Your task to perform on an android device: turn on location history Image 0: 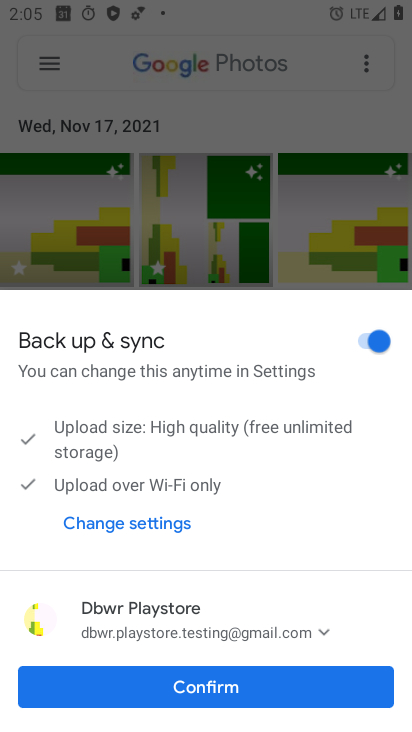
Step 0: press home button
Your task to perform on an android device: turn on location history Image 1: 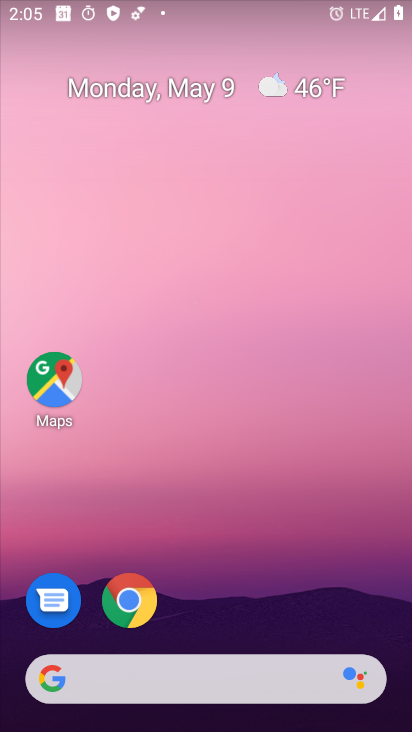
Step 1: drag from (140, 692) to (140, 92)
Your task to perform on an android device: turn on location history Image 2: 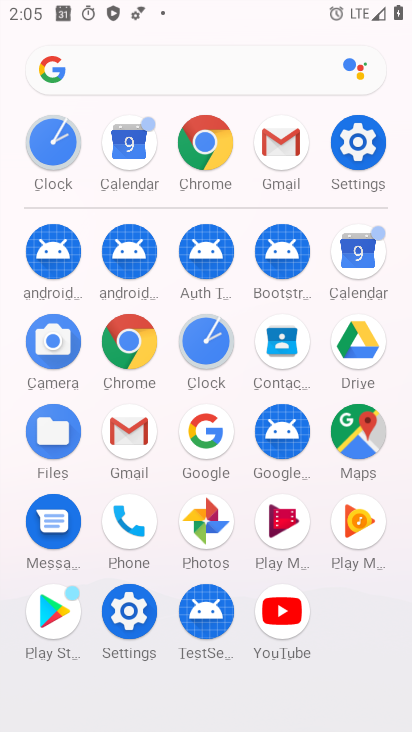
Step 2: click (364, 141)
Your task to perform on an android device: turn on location history Image 3: 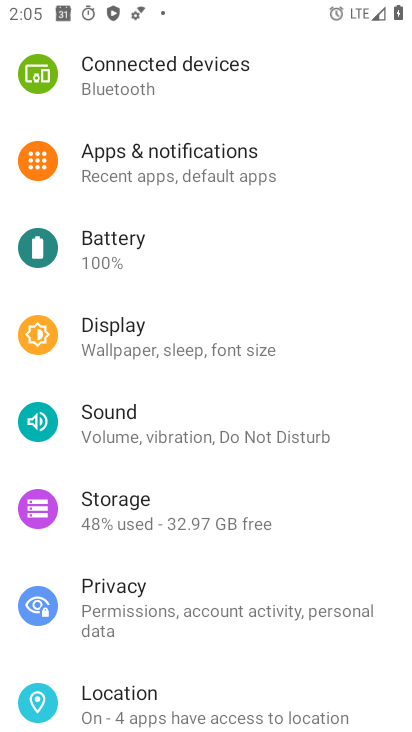
Step 3: drag from (193, 615) to (219, 148)
Your task to perform on an android device: turn on location history Image 4: 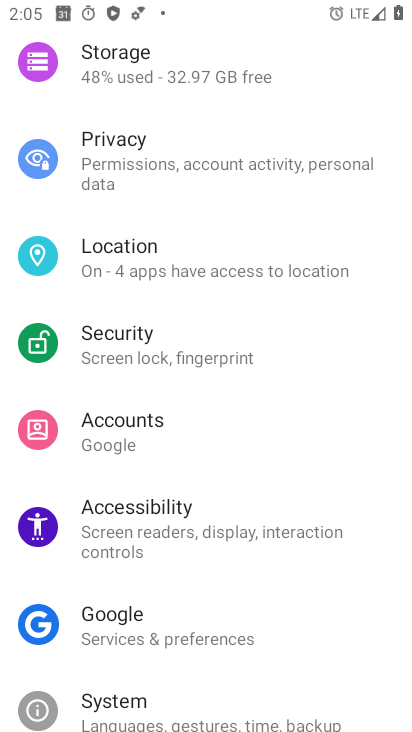
Step 4: click (154, 256)
Your task to perform on an android device: turn on location history Image 5: 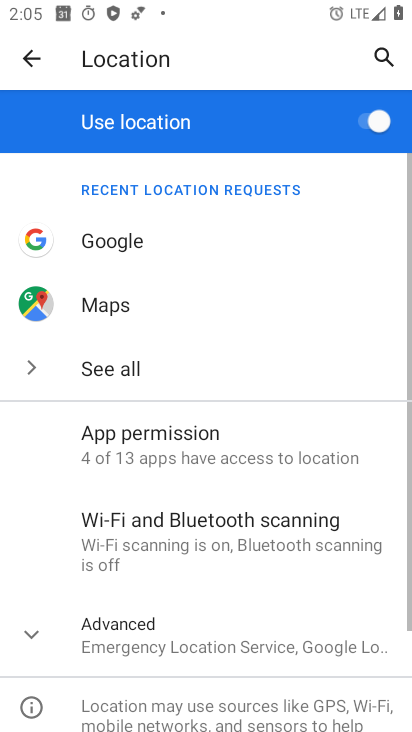
Step 5: drag from (132, 551) to (95, 171)
Your task to perform on an android device: turn on location history Image 6: 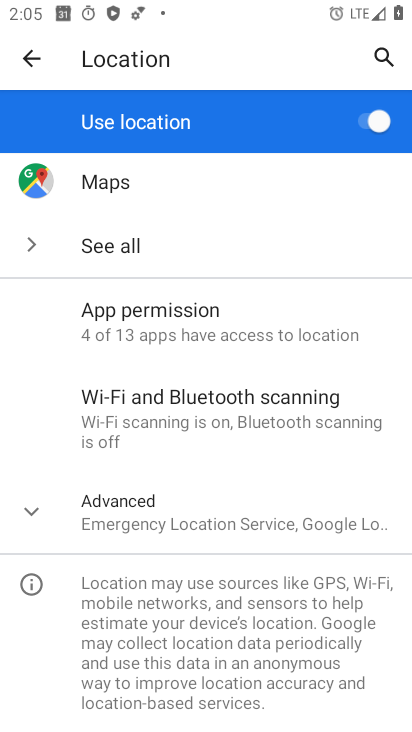
Step 6: click (162, 521)
Your task to perform on an android device: turn on location history Image 7: 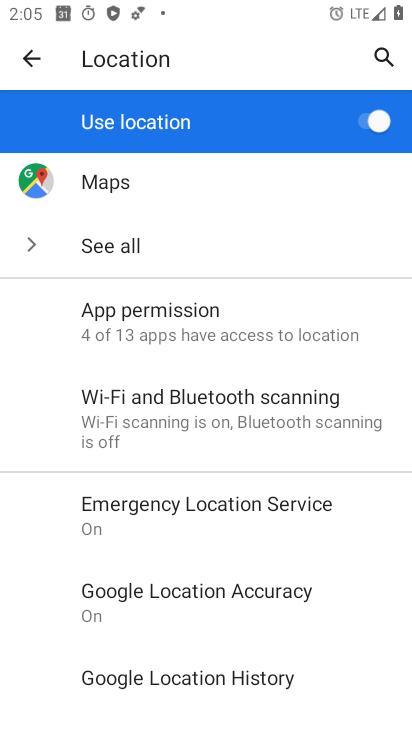
Step 7: click (148, 669)
Your task to perform on an android device: turn on location history Image 8: 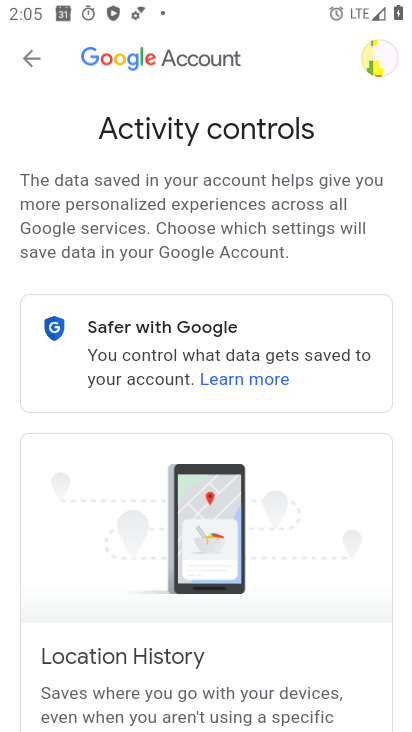
Step 8: click (328, 236)
Your task to perform on an android device: turn on location history Image 9: 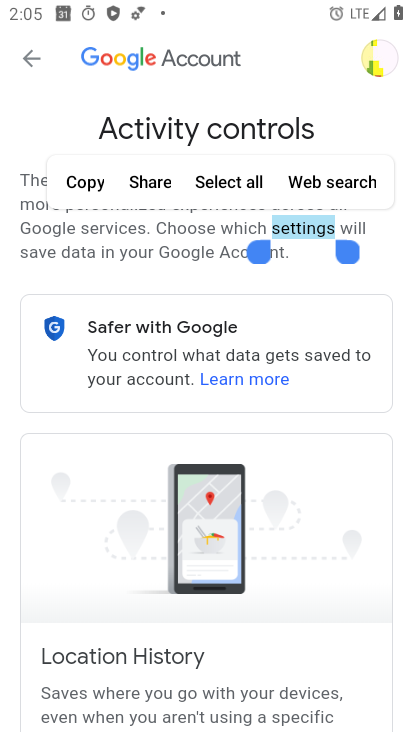
Step 9: press home button
Your task to perform on an android device: turn on location history Image 10: 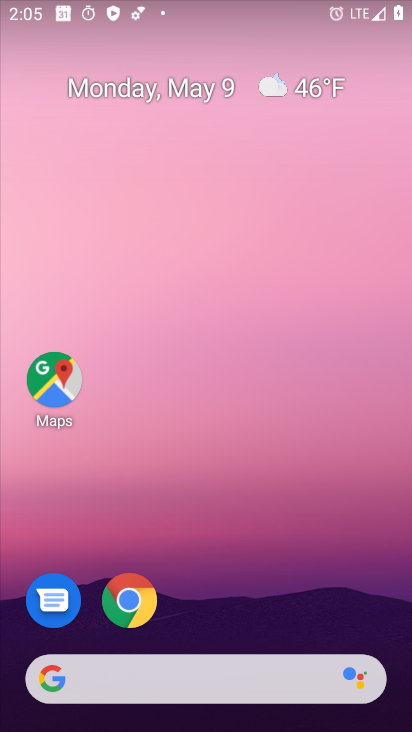
Step 10: drag from (196, 674) to (200, 272)
Your task to perform on an android device: turn on location history Image 11: 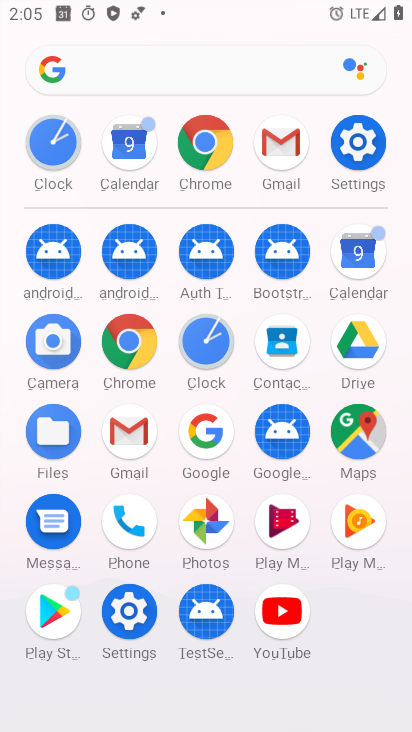
Step 11: click (358, 158)
Your task to perform on an android device: turn on location history Image 12: 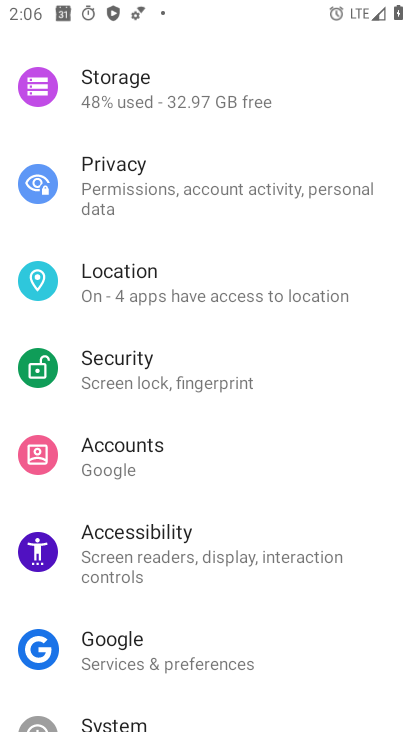
Step 12: drag from (125, 575) to (125, 471)
Your task to perform on an android device: turn on location history Image 13: 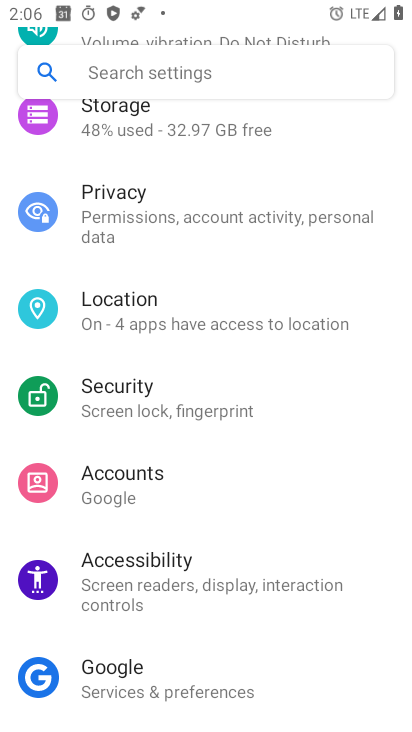
Step 13: click (128, 324)
Your task to perform on an android device: turn on location history Image 14: 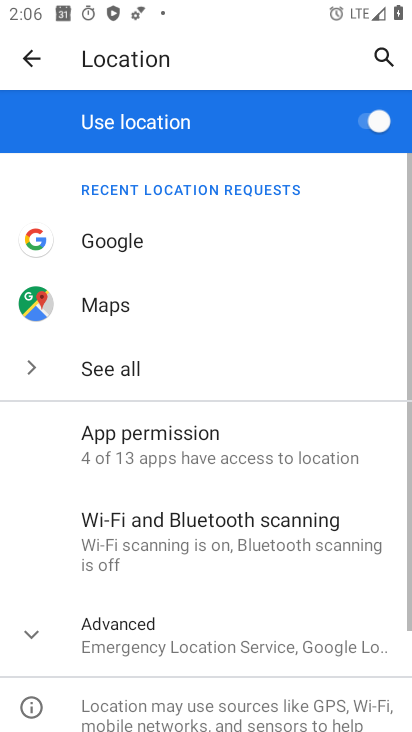
Step 14: click (121, 616)
Your task to perform on an android device: turn on location history Image 15: 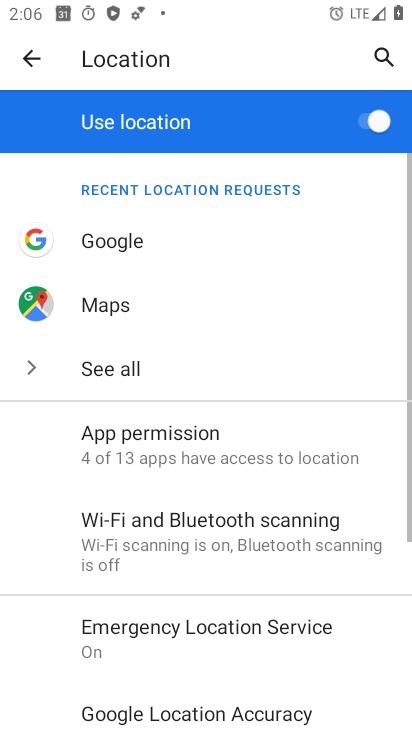
Step 15: drag from (151, 614) to (136, 202)
Your task to perform on an android device: turn on location history Image 16: 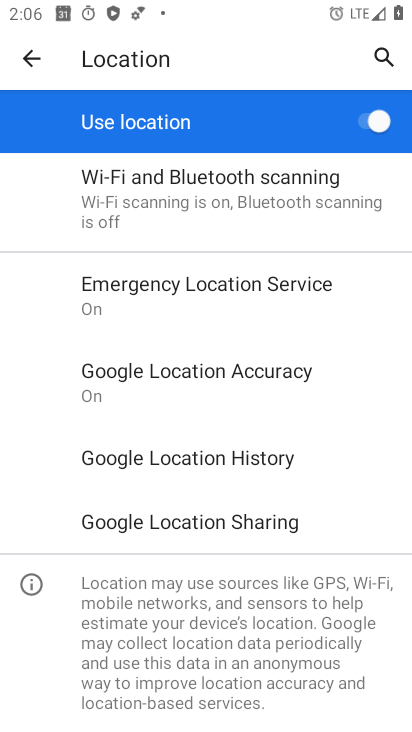
Step 16: click (202, 462)
Your task to perform on an android device: turn on location history Image 17: 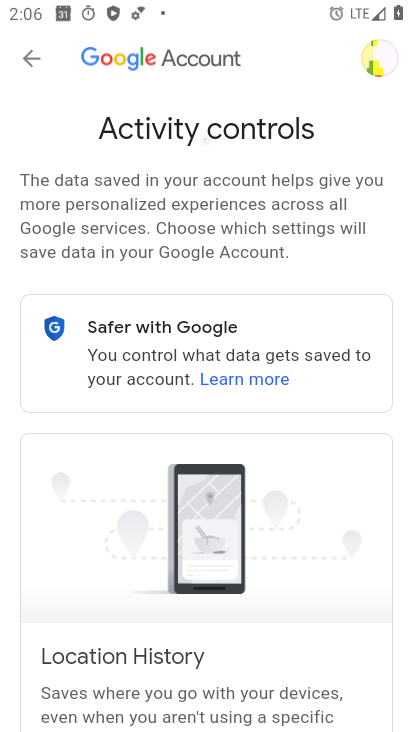
Step 17: drag from (172, 498) to (200, 64)
Your task to perform on an android device: turn on location history Image 18: 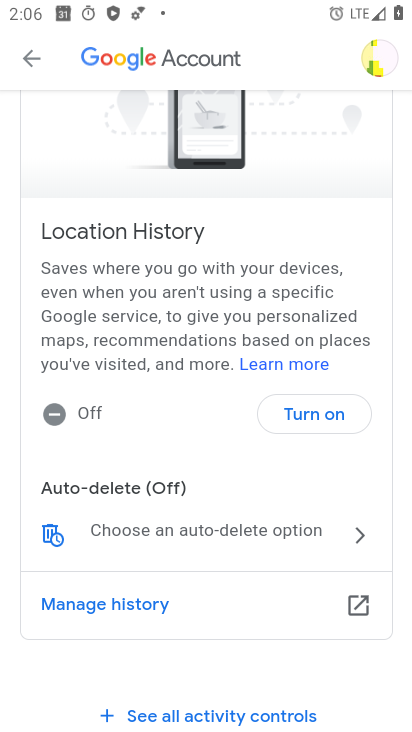
Step 18: click (318, 418)
Your task to perform on an android device: turn on location history Image 19: 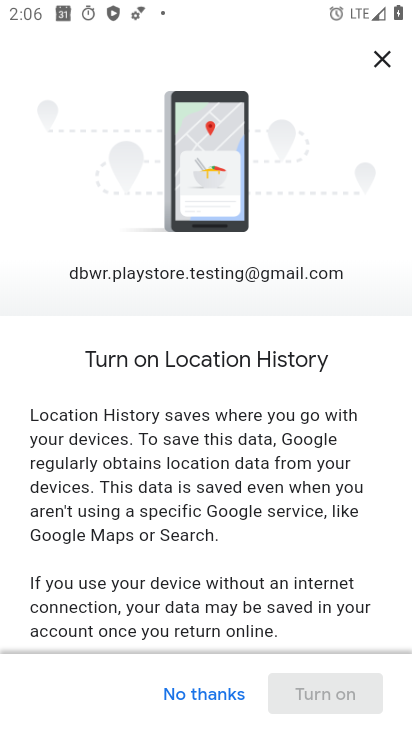
Step 19: drag from (294, 617) to (319, 119)
Your task to perform on an android device: turn on location history Image 20: 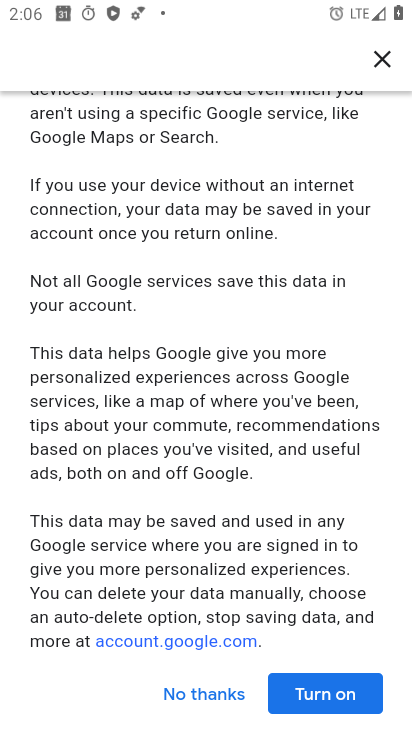
Step 20: click (303, 693)
Your task to perform on an android device: turn on location history Image 21: 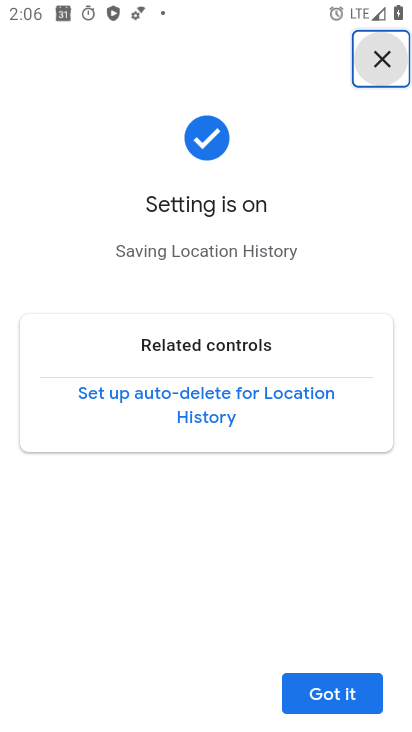
Step 21: click (327, 701)
Your task to perform on an android device: turn on location history Image 22: 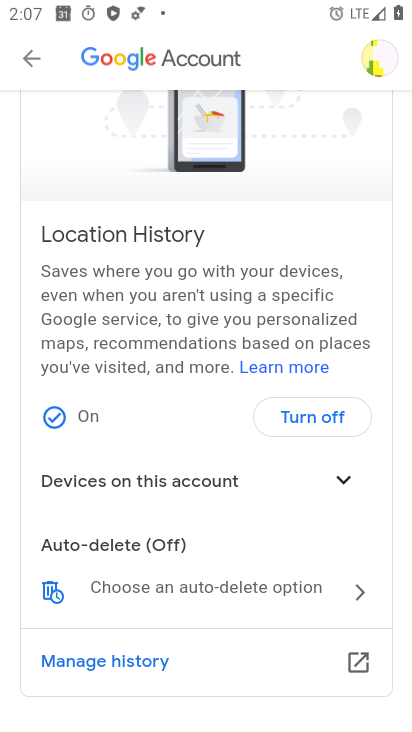
Step 22: task complete